Your task to perform on an android device: Open the calendar app, open the side menu, and click the "Day" option Image 0: 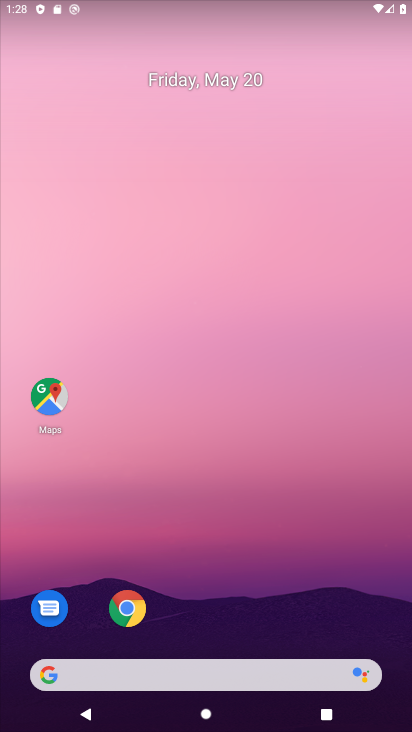
Step 0: drag from (217, 617) to (269, 256)
Your task to perform on an android device: Open the calendar app, open the side menu, and click the "Day" option Image 1: 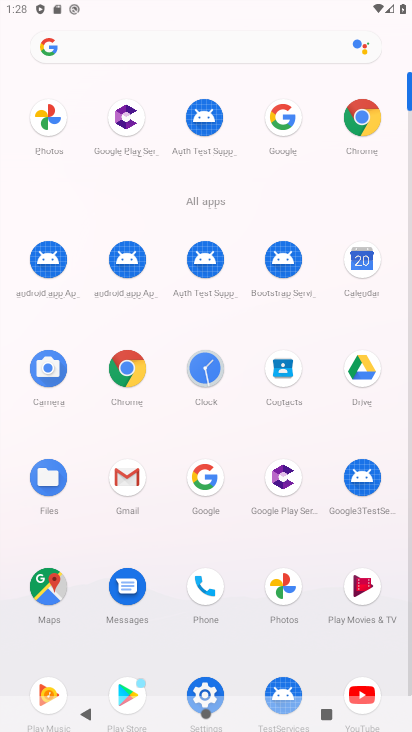
Step 1: click (357, 263)
Your task to perform on an android device: Open the calendar app, open the side menu, and click the "Day" option Image 2: 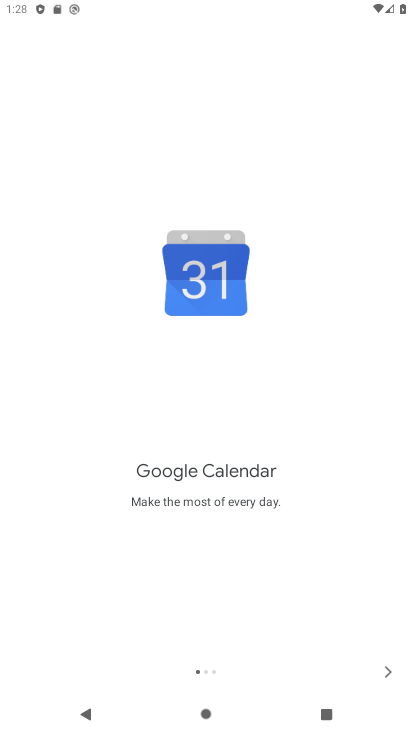
Step 2: click (374, 675)
Your task to perform on an android device: Open the calendar app, open the side menu, and click the "Day" option Image 3: 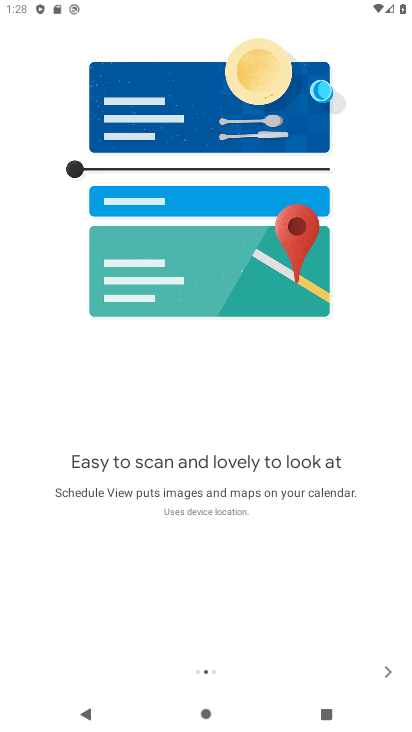
Step 3: click (384, 674)
Your task to perform on an android device: Open the calendar app, open the side menu, and click the "Day" option Image 4: 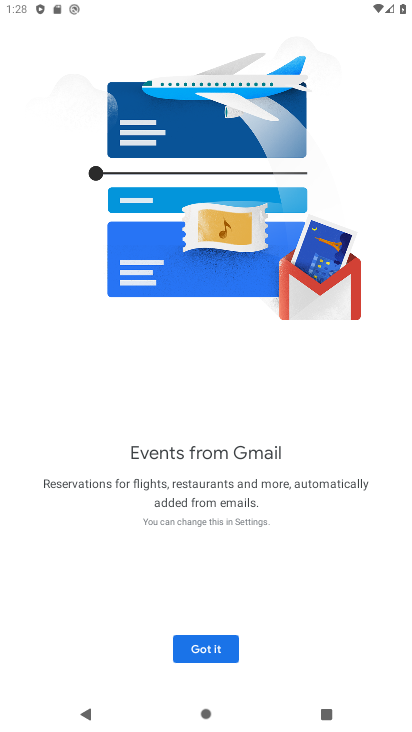
Step 4: click (198, 656)
Your task to perform on an android device: Open the calendar app, open the side menu, and click the "Day" option Image 5: 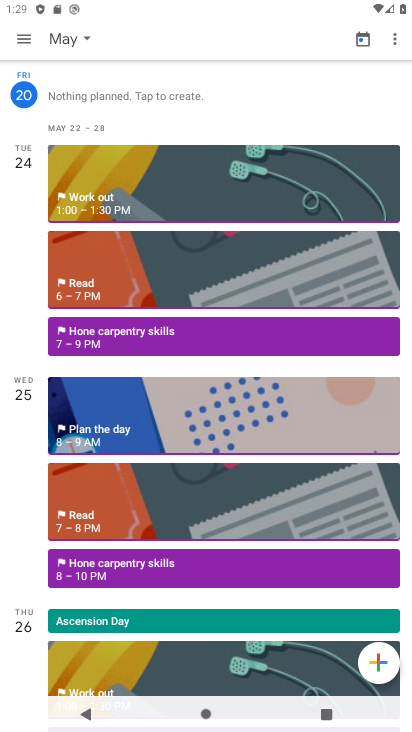
Step 5: click (24, 39)
Your task to perform on an android device: Open the calendar app, open the side menu, and click the "Day" option Image 6: 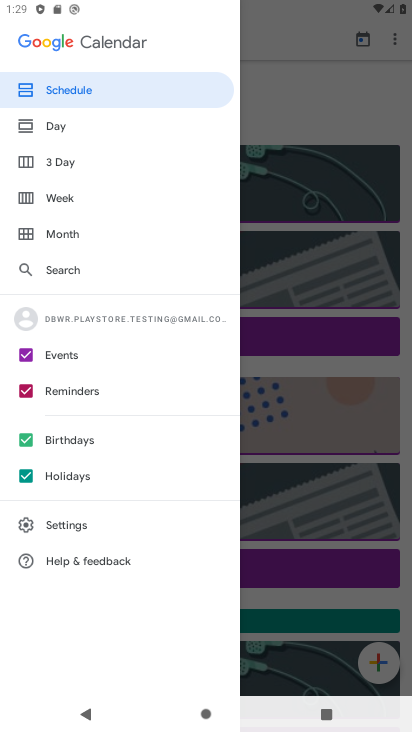
Step 6: click (61, 125)
Your task to perform on an android device: Open the calendar app, open the side menu, and click the "Day" option Image 7: 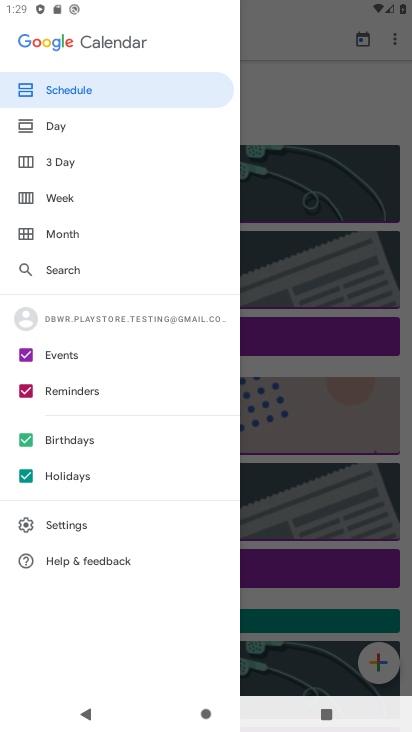
Step 7: click (47, 126)
Your task to perform on an android device: Open the calendar app, open the side menu, and click the "Day" option Image 8: 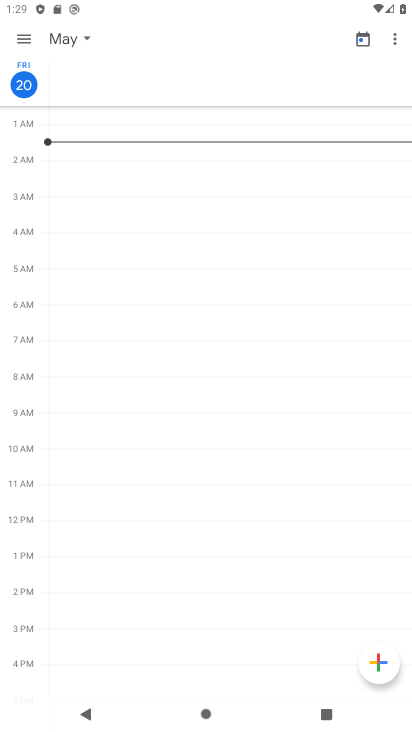
Step 8: task complete